Your task to perform on an android device: What's the weather today? Image 0: 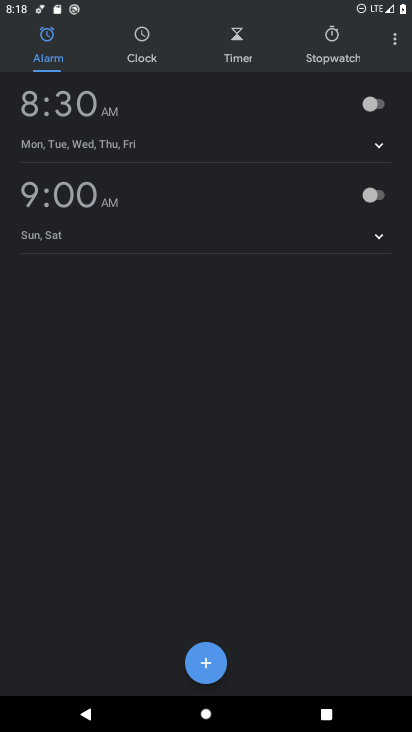
Step 0: press home button
Your task to perform on an android device: What's the weather today? Image 1: 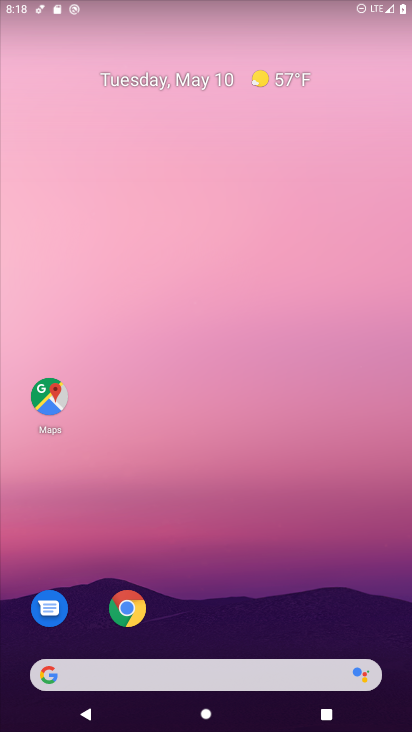
Step 1: click (189, 670)
Your task to perform on an android device: What's the weather today? Image 2: 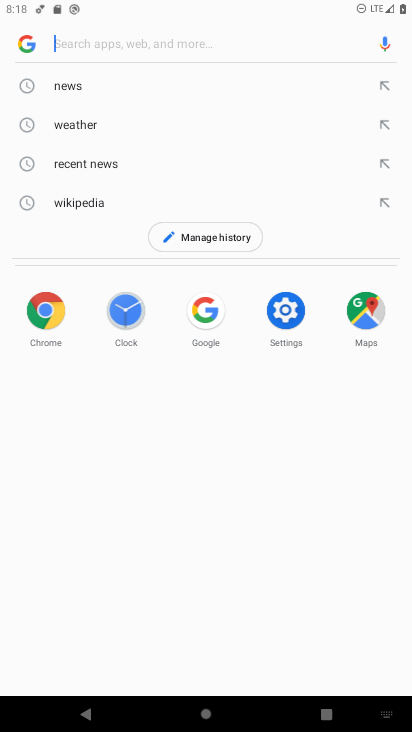
Step 2: click (81, 131)
Your task to perform on an android device: What's the weather today? Image 3: 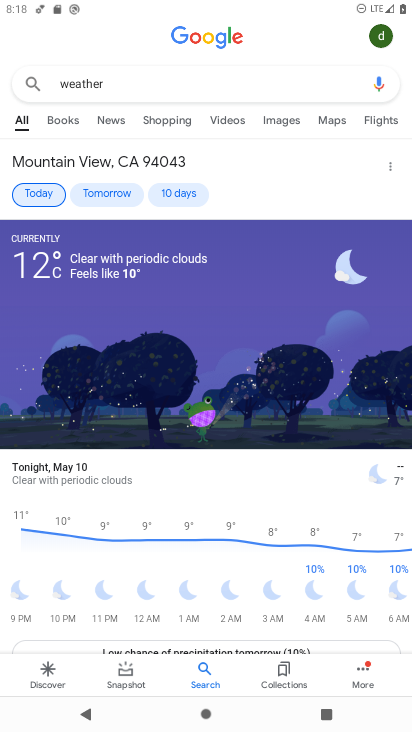
Step 3: task complete